Your task to perform on an android device: What is the news today? Image 0: 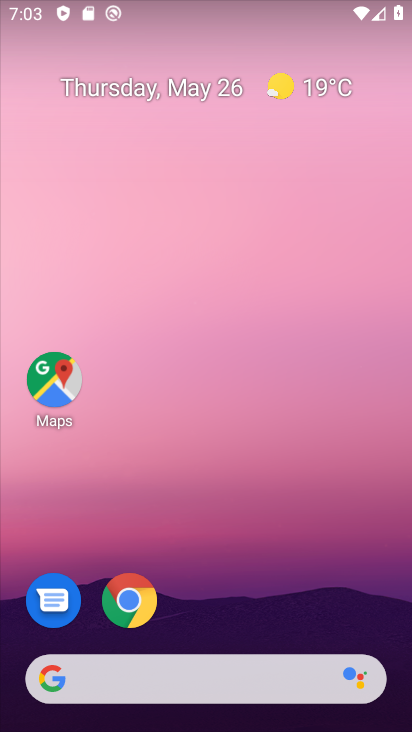
Step 0: drag from (271, 685) to (239, 212)
Your task to perform on an android device: What is the news today? Image 1: 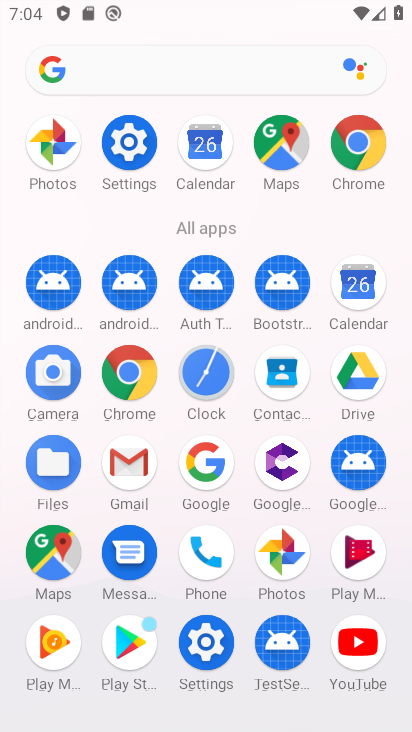
Step 1: click (121, 91)
Your task to perform on an android device: What is the news today? Image 2: 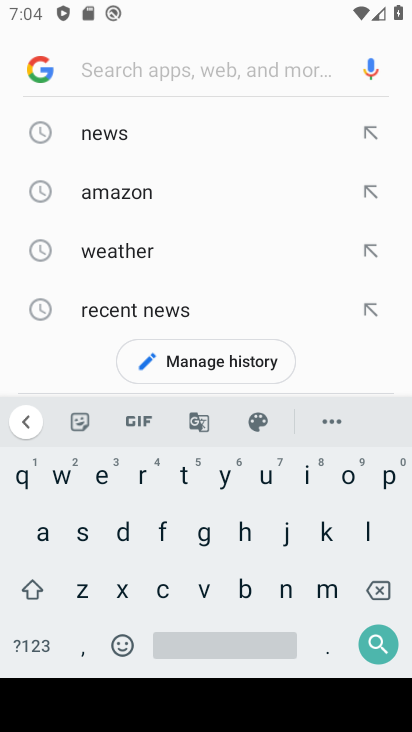
Step 2: click (145, 131)
Your task to perform on an android device: What is the news today? Image 3: 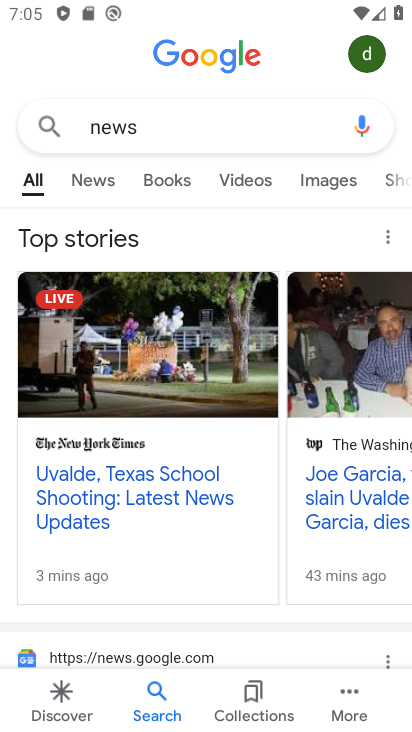
Step 3: task complete